Your task to perform on an android device: turn on data saver in the chrome app Image 0: 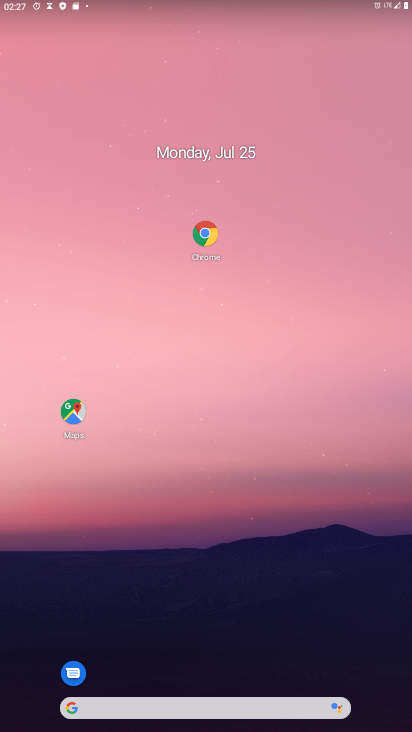
Step 0: drag from (299, 693) to (296, 57)
Your task to perform on an android device: turn on data saver in the chrome app Image 1: 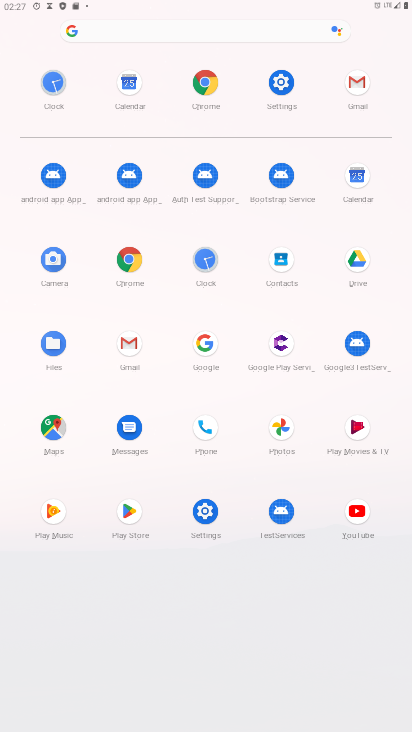
Step 1: click (124, 266)
Your task to perform on an android device: turn on data saver in the chrome app Image 2: 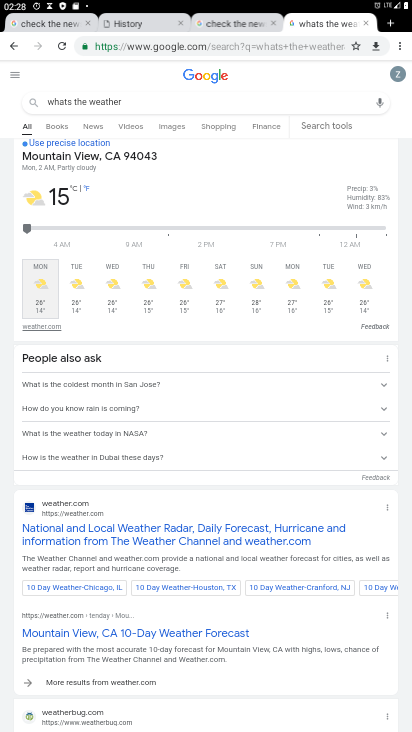
Step 2: drag from (403, 42) to (328, 285)
Your task to perform on an android device: turn on data saver in the chrome app Image 3: 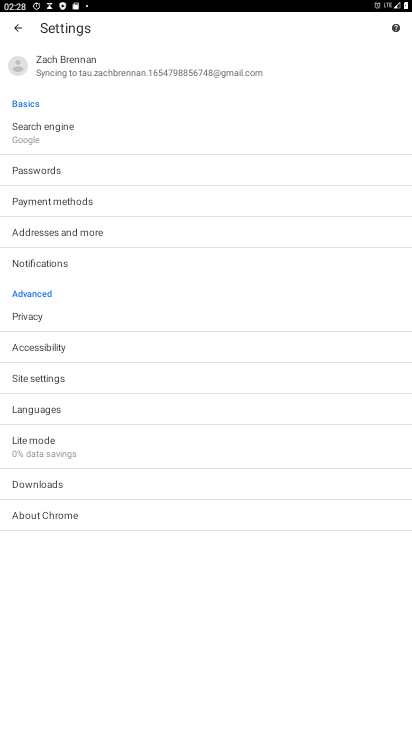
Step 3: click (51, 455)
Your task to perform on an android device: turn on data saver in the chrome app Image 4: 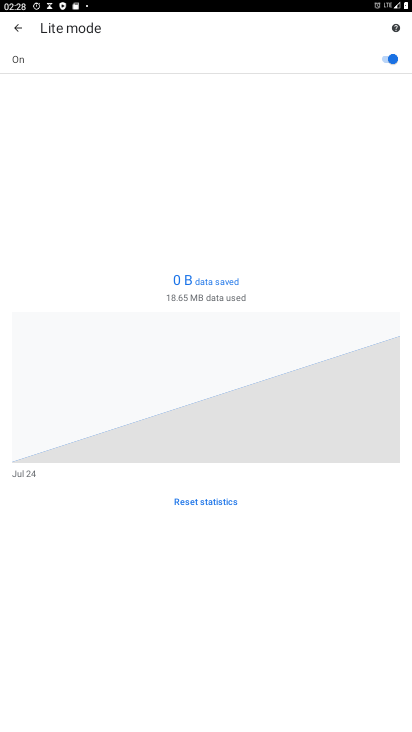
Step 4: task complete